Your task to perform on an android device: Go to Google maps Image 0: 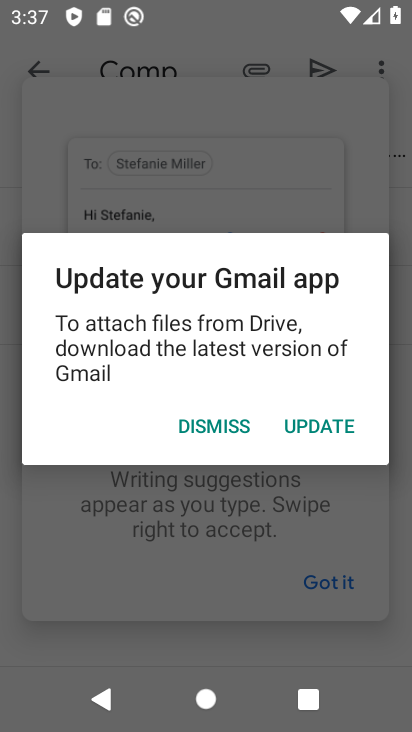
Step 0: press back button
Your task to perform on an android device: Go to Google maps Image 1: 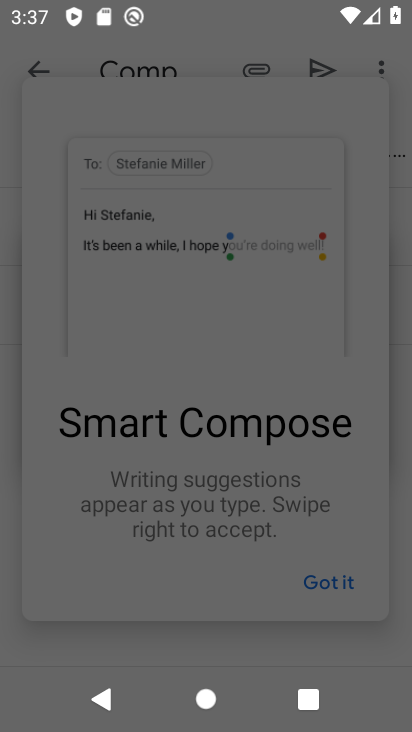
Step 1: press home button
Your task to perform on an android device: Go to Google maps Image 2: 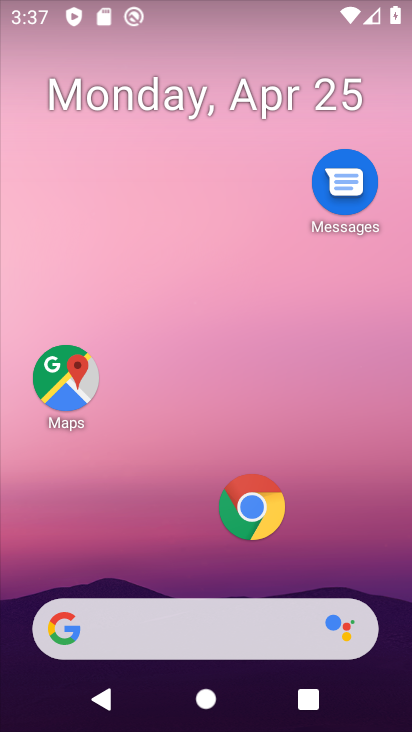
Step 2: drag from (169, 485) to (227, 86)
Your task to perform on an android device: Go to Google maps Image 3: 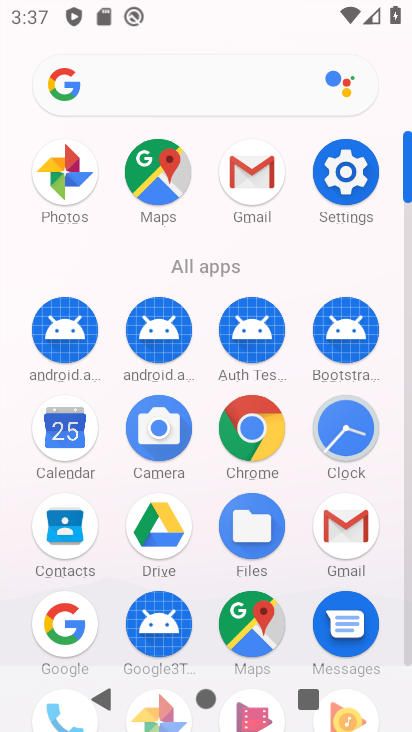
Step 3: click (181, 172)
Your task to perform on an android device: Go to Google maps Image 4: 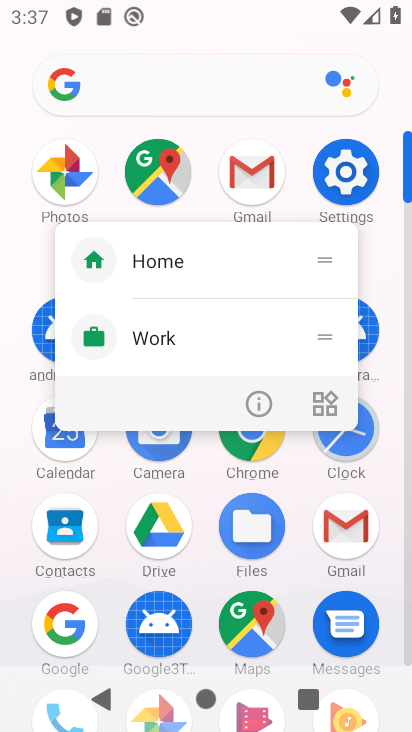
Step 4: click (166, 180)
Your task to perform on an android device: Go to Google maps Image 5: 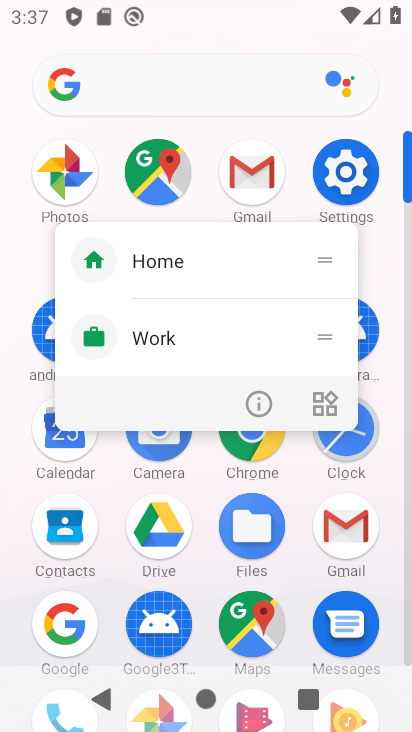
Step 5: click (167, 183)
Your task to perform on an android device: Go to Google maps Image 6: 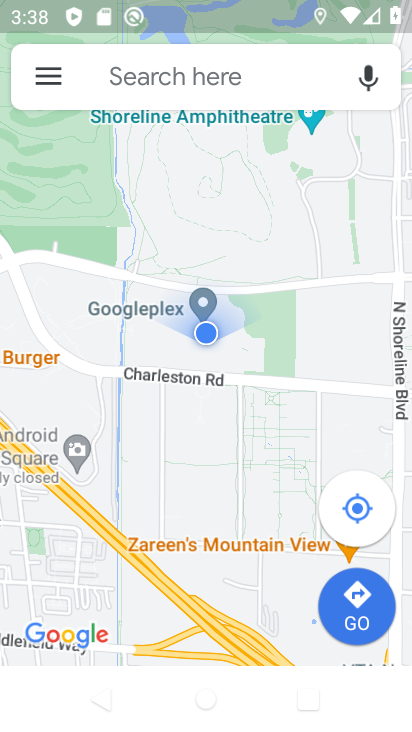
Step 6: task complete